Your task to perform on an android device: turn notification dots off Image 0: 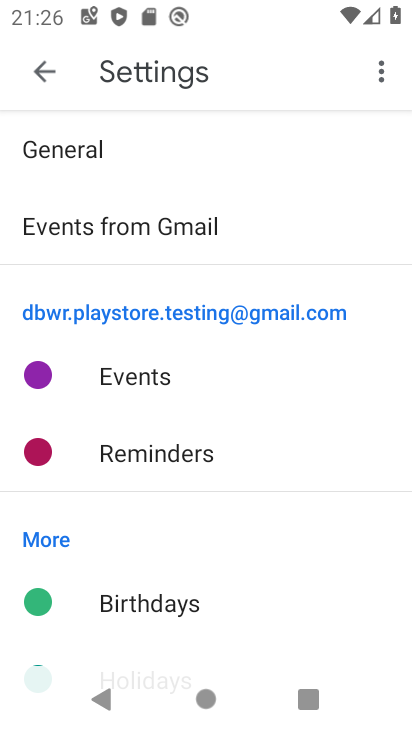
Step 0: press home button
Your task to perform on an android device: turn notification dots off Image 1: 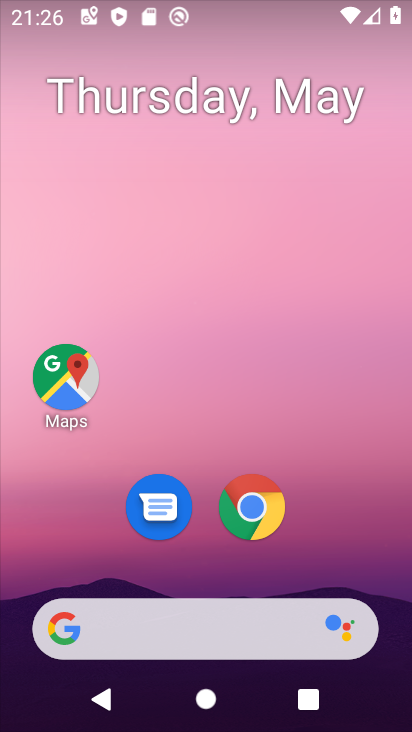
Step 1: drag from (243, 664) to (212, 173)
Your task to perform on an android device: turn notification dots off Image 2: 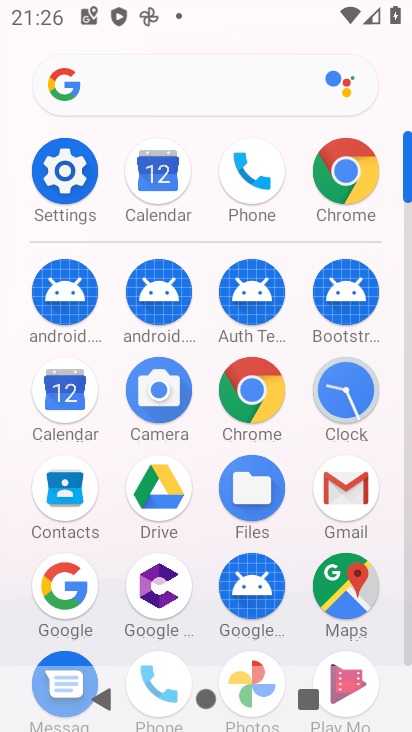
Step 2: click (67, 173)
Your task to perform on an android device: turn notification dots off Image 3: 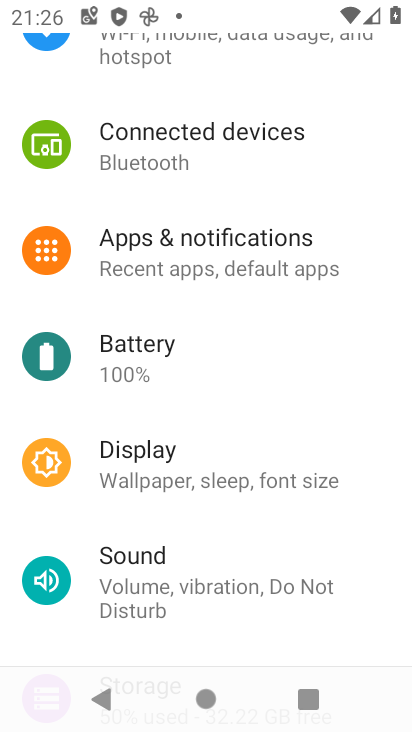
Step 3: drag from (185, 444) to (119, 626)
Your task to perform on an android device: turn notification dots off Image 4: 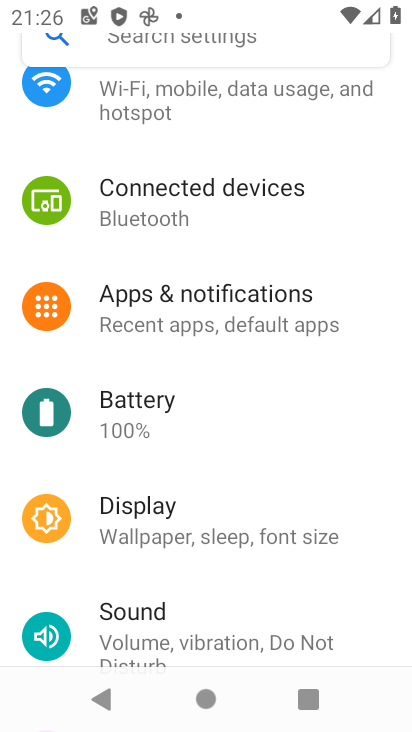
Step 4: click (178, 47)
Your task to perform on an android device: turn notification dots off Image 5: 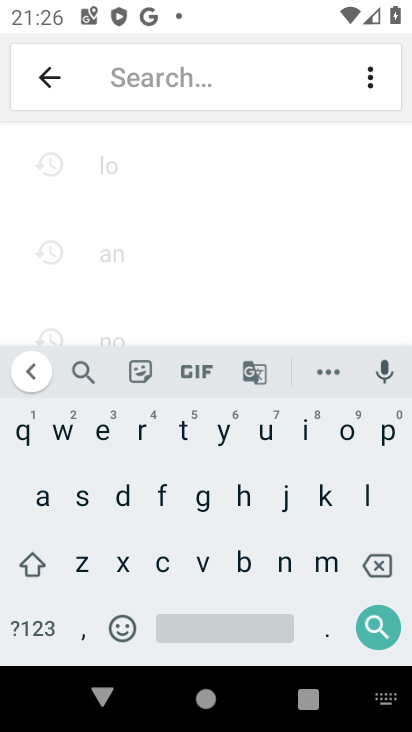
Step 5: click (122, 501)
Your task to perform on an android device: turn notification dots off Image 6: 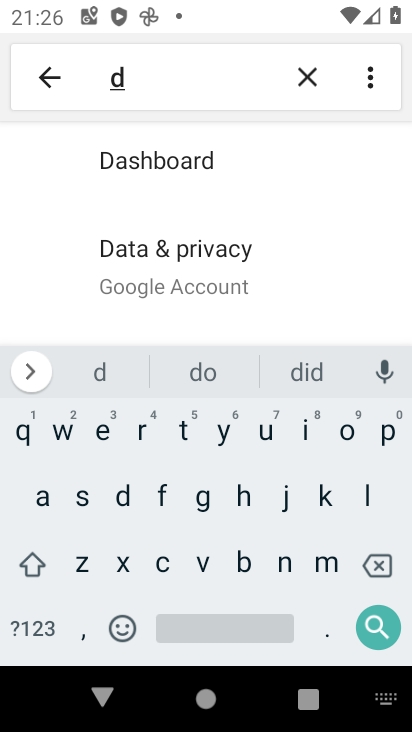
Step 6: click (337, 437)
Your task to perform on an android device: turn notification dots off Image 7: 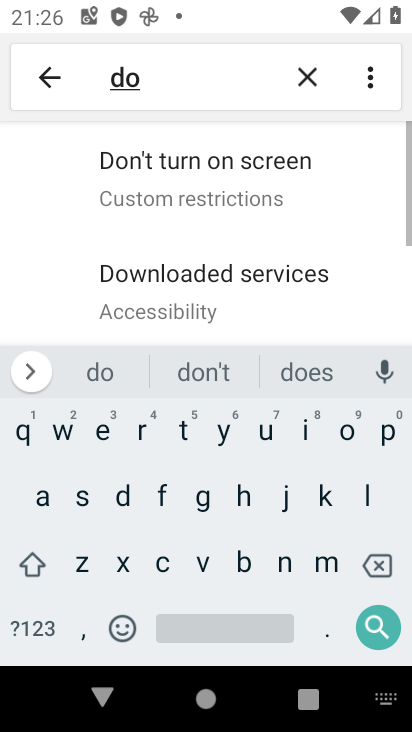
Step 7: click (180, 435)
Your task to perform on an android device: turn notification dots off Image 8: 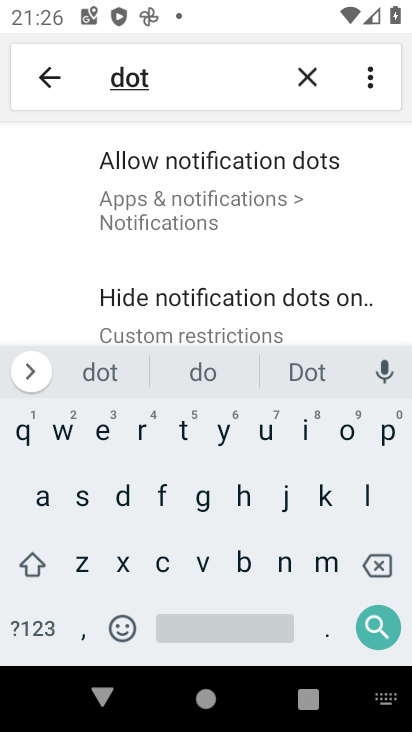
Step 8: click (214, 178)
Your task to perform on an android device: turn notification dots off Image 9: 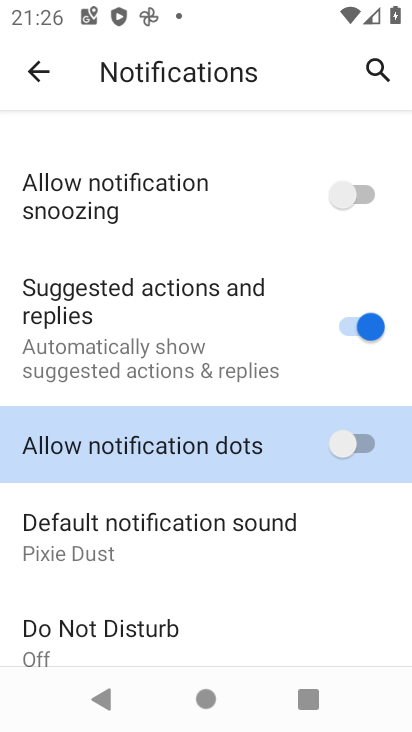
Step 9: task complete